Your task to perform on an android device: Empty the shopping cart on target.com. Search for razer blade on target.com, select the first entry, and add it to the cart. Image 0: 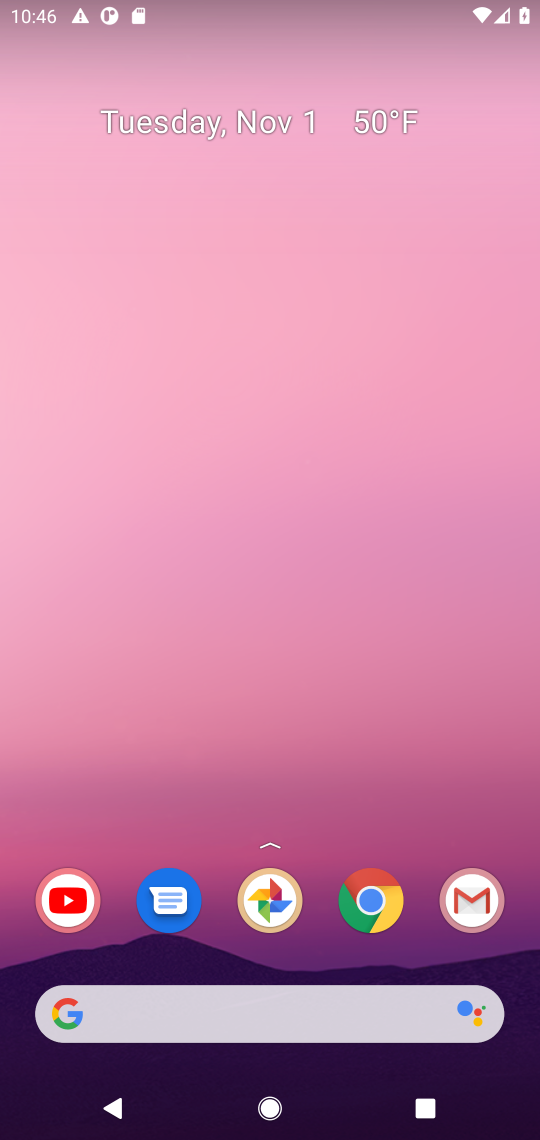
Step 0: click (369, 905)
Your task to perform on an android device: Empty the shopping cart on target.com. Search for razer blade on target.com, select the first entry, and add it to the cart. Image 1: 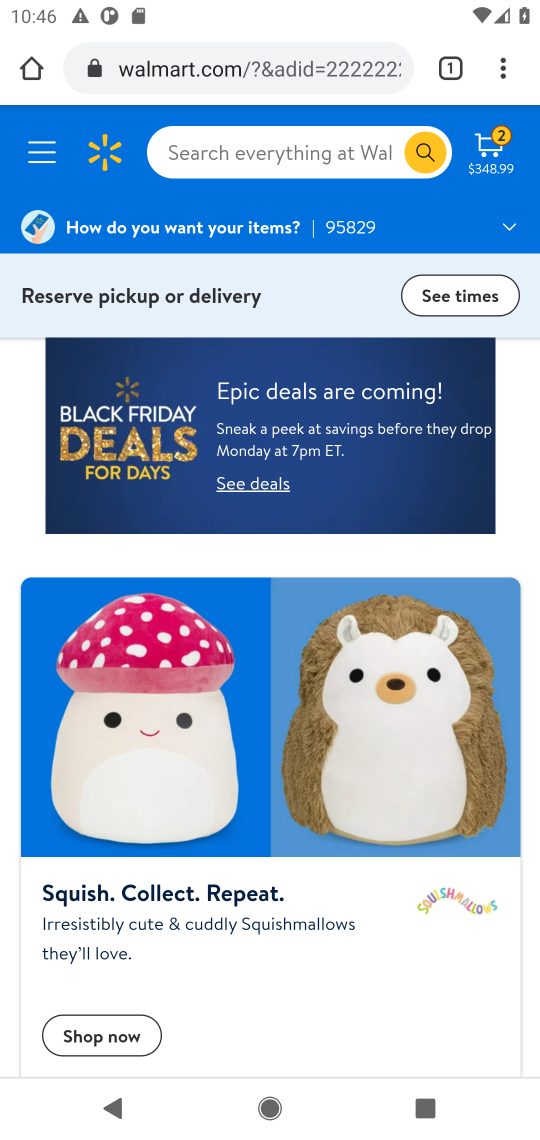
Step 1: click (231, 70)
Your task to perform on an android device: Empty the shopping cart on target.com. Search for razer blade on target.com, select the first entry, and add it to the cart. Image 2: 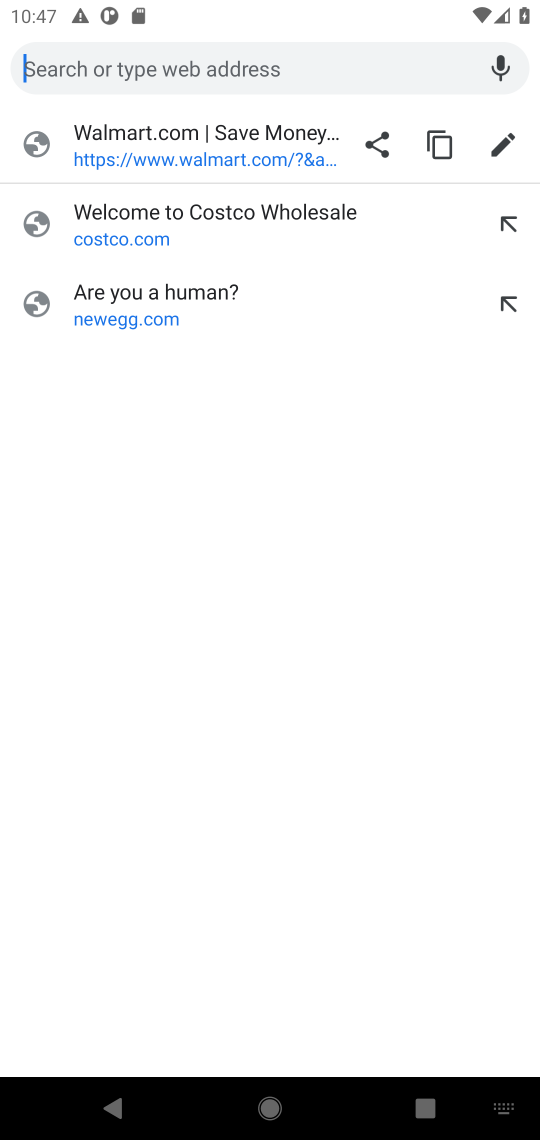
Step 2: type "target"
Your task to perform on an android device: Empty the shopping cart on target.com. Search for razer blade on target.com, select the first entry, and add it to the cart. Image 3: 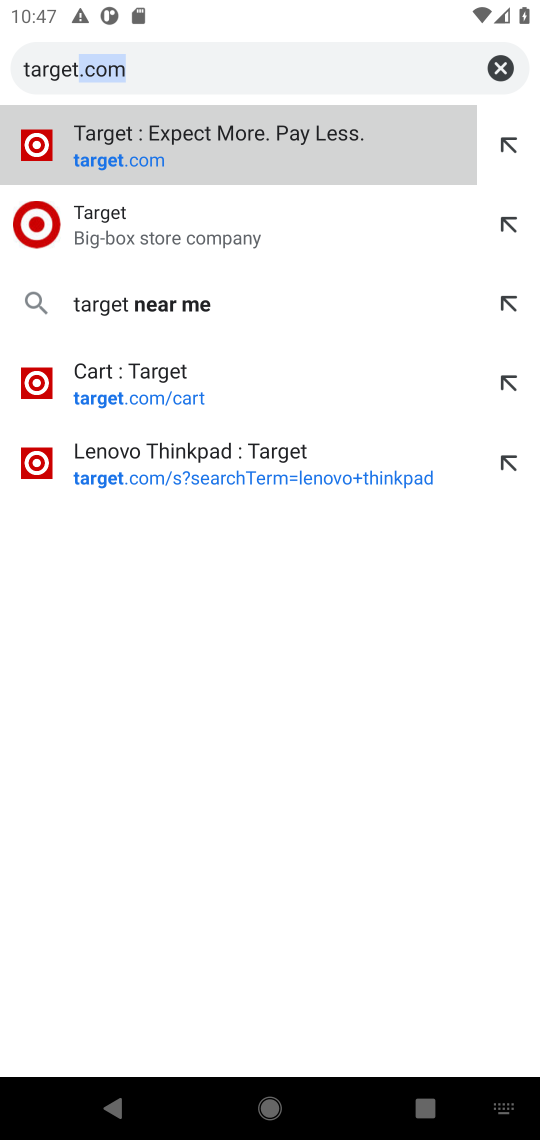
Step 3: click (98, 228)
Your task to perform on an android device: Empty the shopping cart on target.com. Search for razer blade on target.com, select the first entry, and add it to the cart. Image 4: 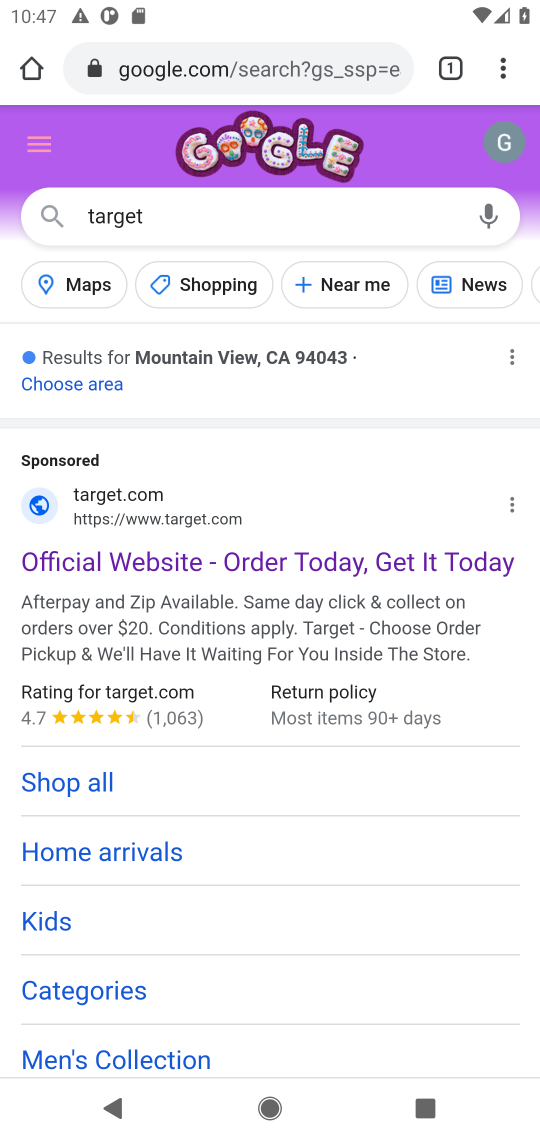
Step 4: click (192, 563)
Your task to perform on an android device: Empty the shopping cart on target.com. Search for razer blade on target.com, select the first entry, and add it to the cart. Image 5: 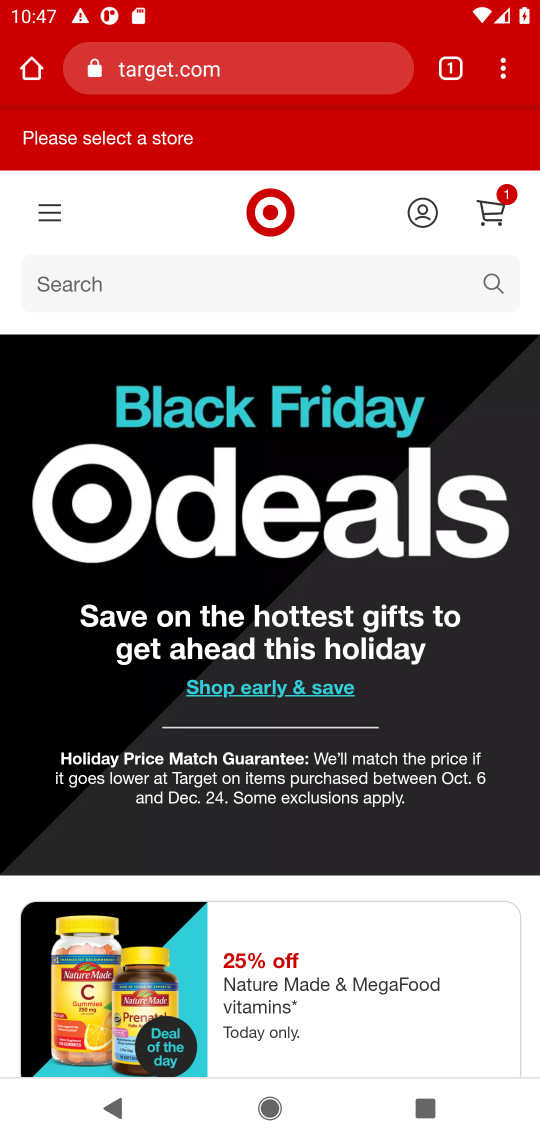
Step 5: click (488, 226)
Your task to perform on an android device: Empty the shopping cart on target.com. Search for razer blade on target.com, select the first entry, and add it to the cart. Image 6: 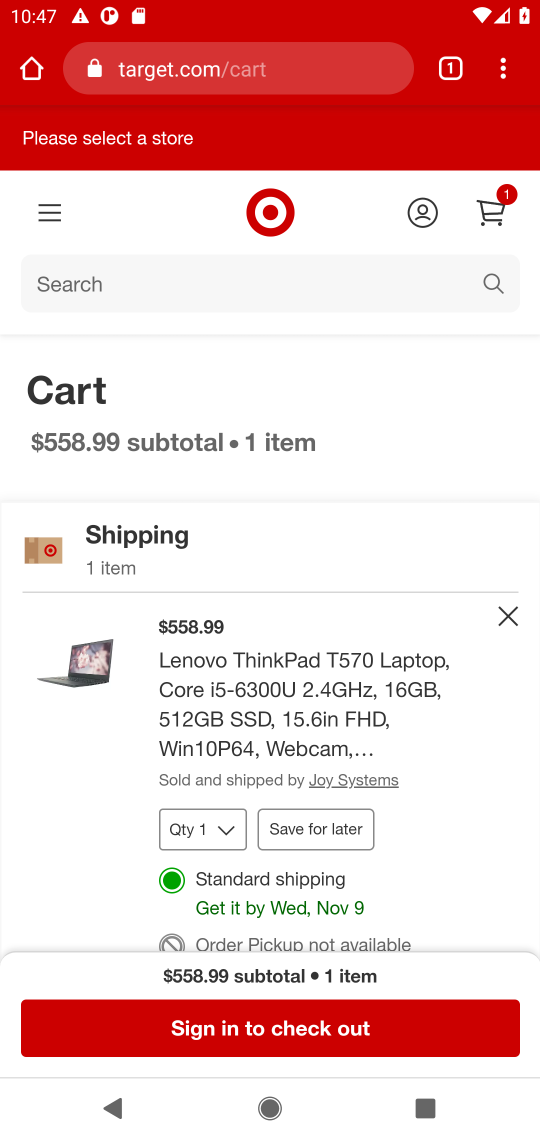
Step 6: click (511, 599)
Your task to perform on an android device: Empty the shopping cart on target.com. Search for razer blade on target.com, select the first entry, and add it to the cart. Image 7: 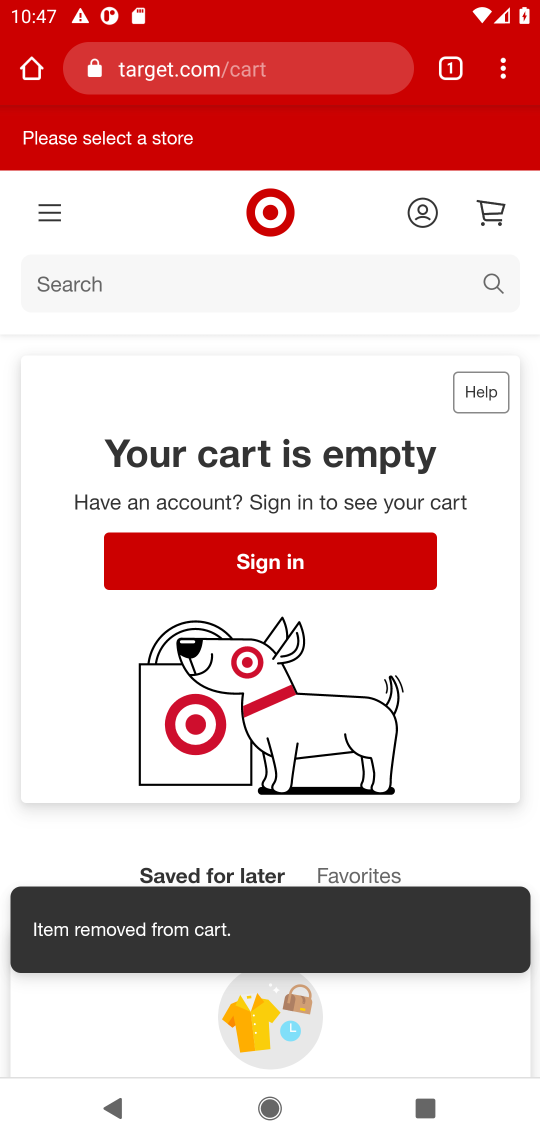
Step 7: click (344, 278)
Your task to perform on an android device: Empty the shopping cart on target.com. Search for razer blade on target.com, select the first entry, and add it to the cart. Image 8: 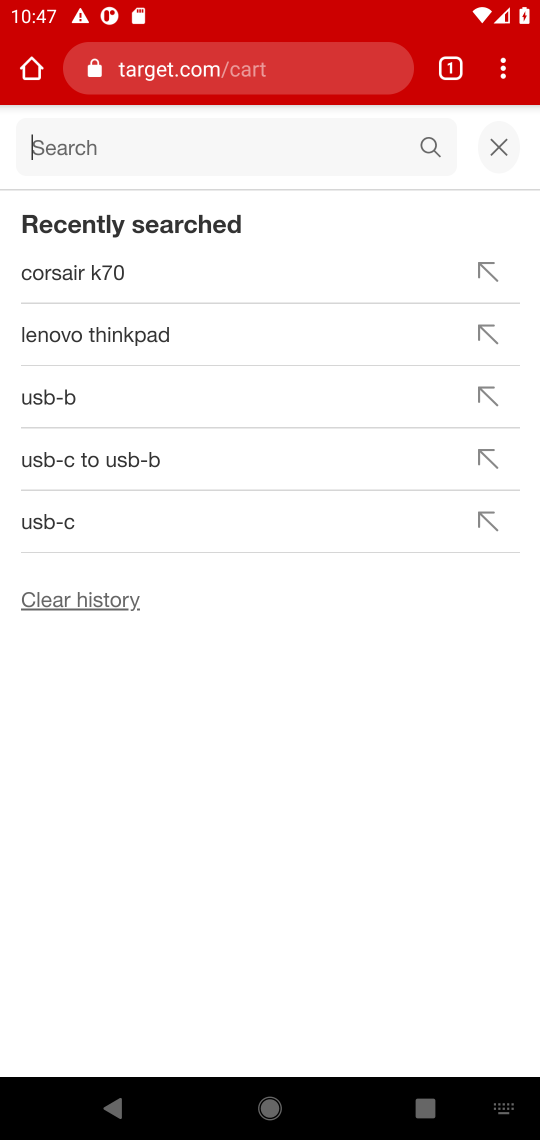
Step 8: type "razer blade"
Your task to perform on an android device: Empty the shopping cart on target.com. Search for razer blade on target.com, select the first entry, and add it to the cart. Image 9: 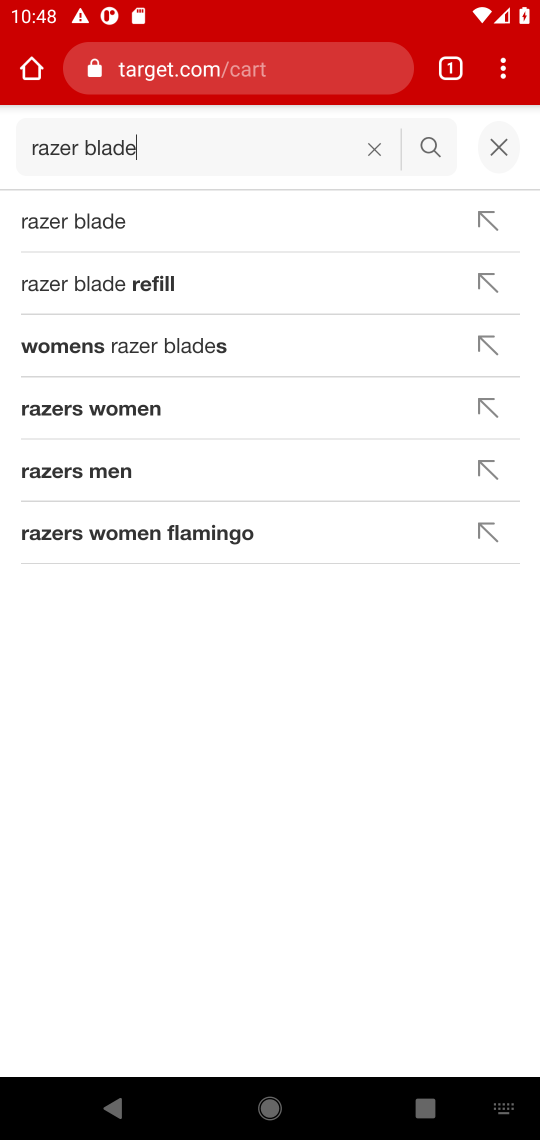
Step 9: click (441, 154)
Your task to perform on an android device: Empty the shopping cart on target.com. Search for razer blade on target.com, select the first entry, and add it to the cart. Image 10: 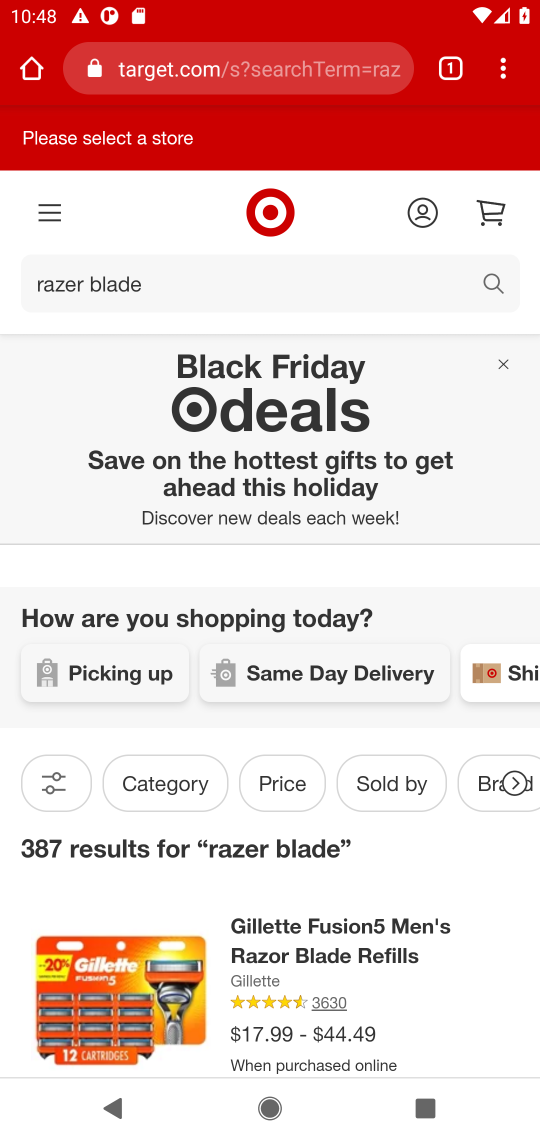
Step 10: drag from (224, 1007) to (342, 216)
Your task to perform on an android device: Empty the shopping cart on target.com. Search for razer blade on target.com, select the first entry, and add it to the cart. Image 11: 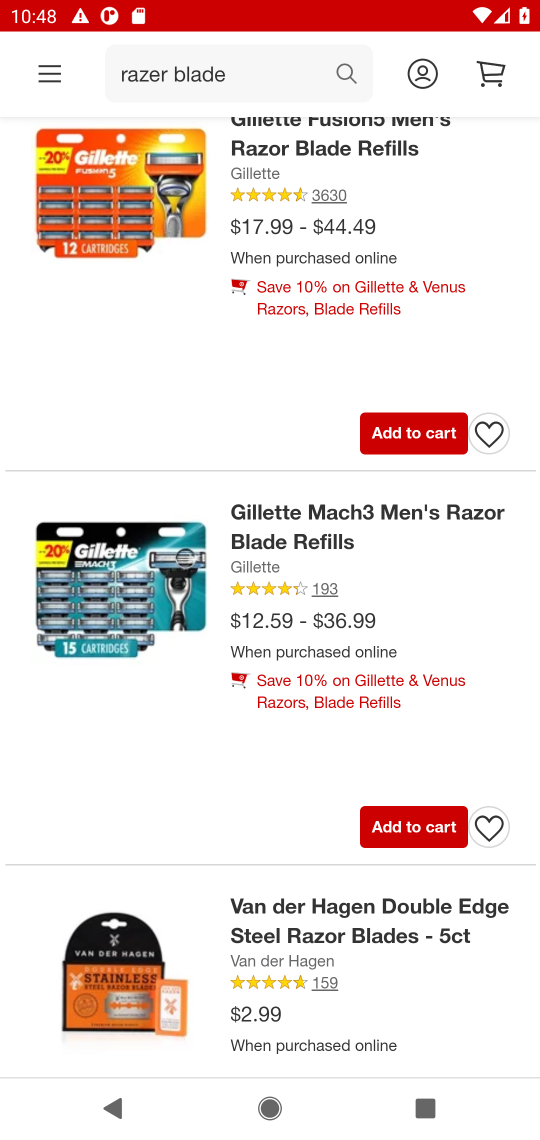
Step 11: click (399, 435)
Your task to perform on an android device: Empty the shopping cart on target.com. Search for razer blade on target.com, select the first entry, and add it to the cart. Image 12: 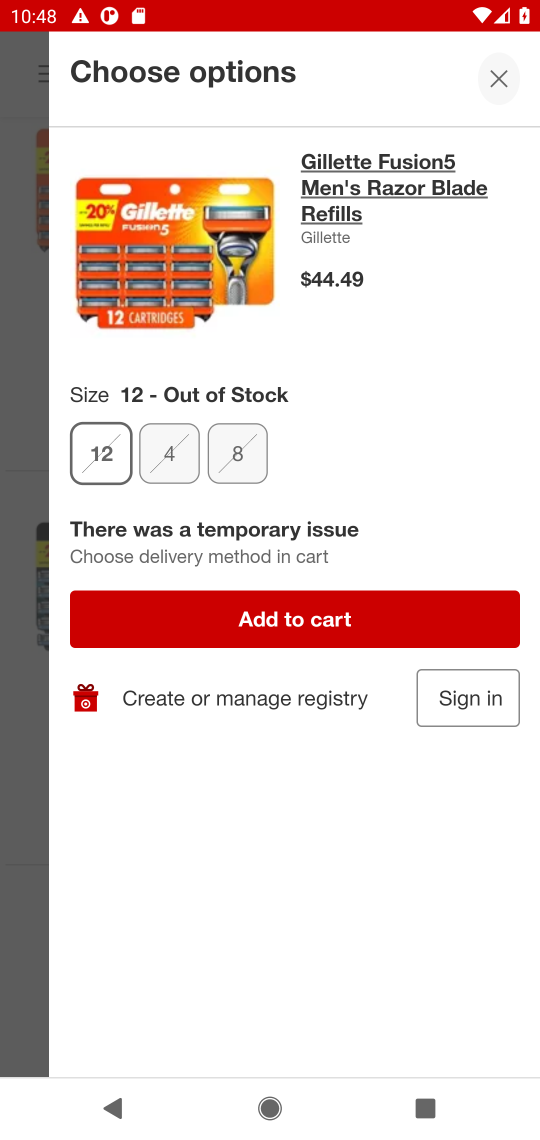
Step 12: click (396, 602)
Your task to perform on an android device: Empty the shopping cart on target.com. Search for razer blade on target.com, select the first entry, and add it to the cart. Image 13: 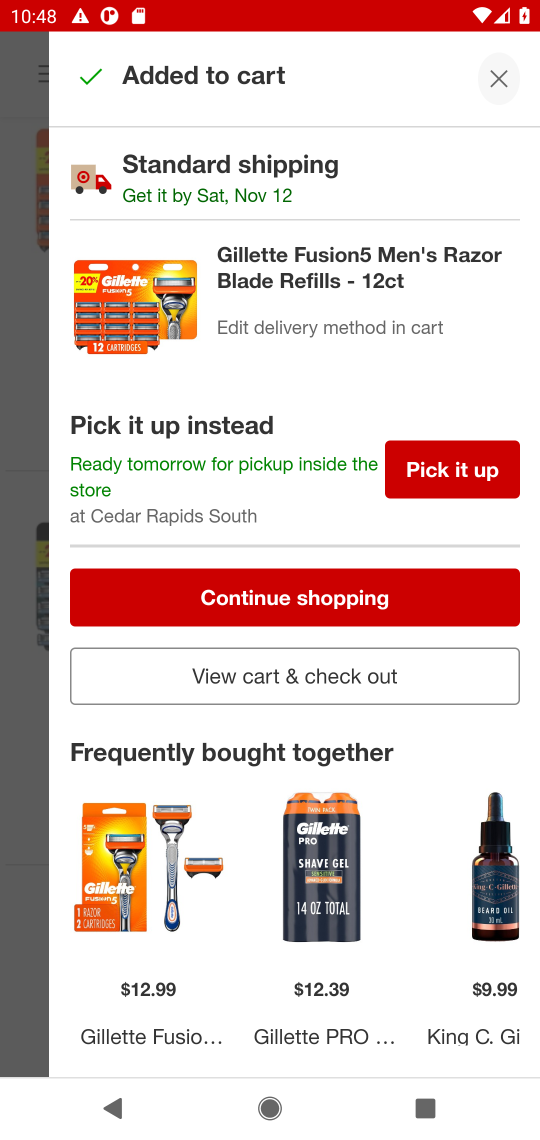
Step 13: task complete